Your task to perform on an android device: Open calendar and show me the fourth week of next month Image 0: 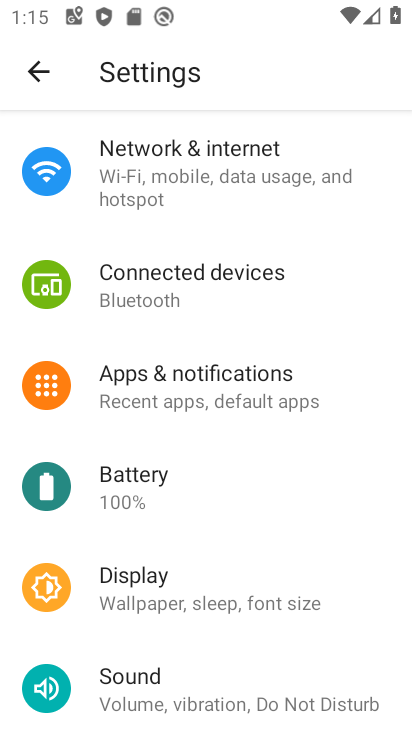
Step 0: press home button
Your task to perform on an android device: Open calendar and show me the fourth week of next month Image 1: 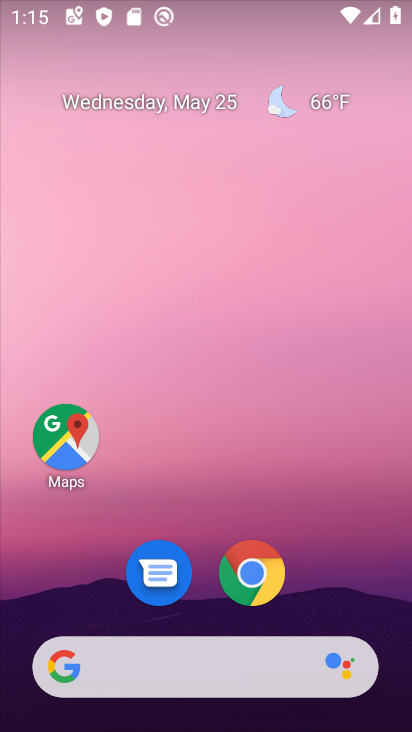
Step 1: drag from (374, 608) to (326, 88)
Your task to perform on an android device: Open calendar and show me the fourth week of next month Image 2: 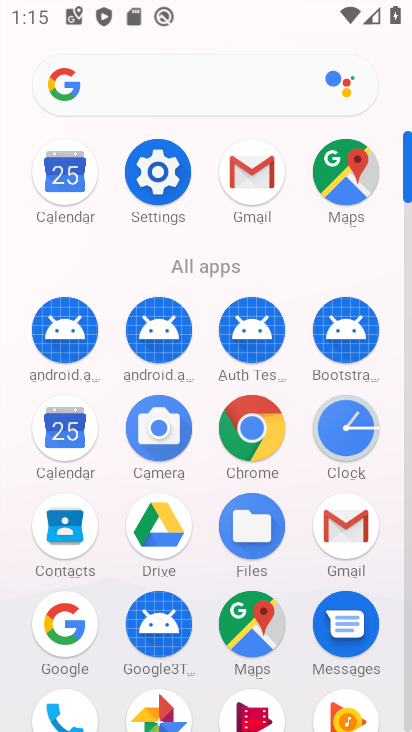
Step 2: click (407, 701)
Your task to perform on an android device: Open calendar and show me the fourth week of next month Image 3: 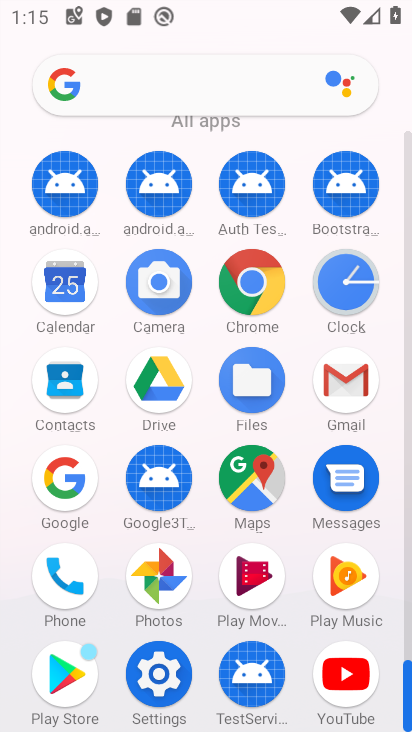
Step 3: click (64, 283)
Your task to perform on an android device: Open calendar and show me the fourth week of next month Image 4: 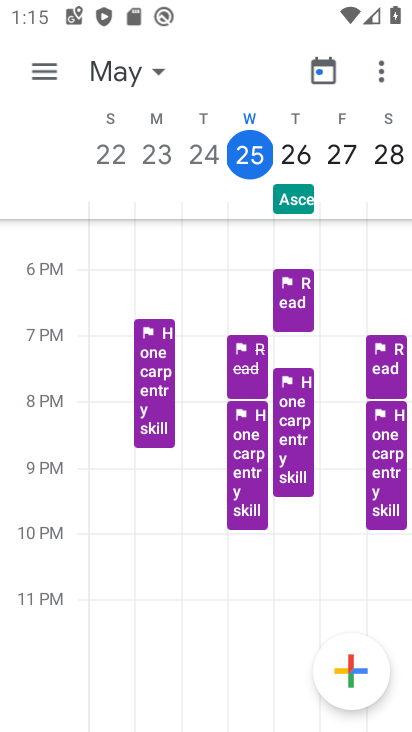
Step 4: click (50, 73)
Your task to perform on an android device: Open calendar and show me the fourth week of next month Image 5: 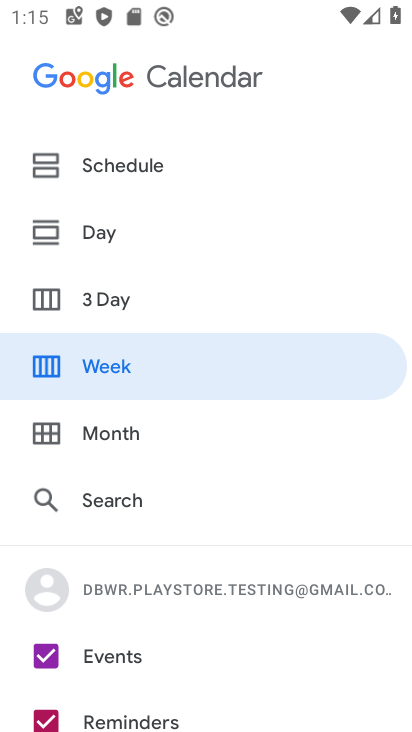
Step 5: click (154, 343)
Your task to perform on an android device: Open calendar and show me the fourth week of next month Image 6: 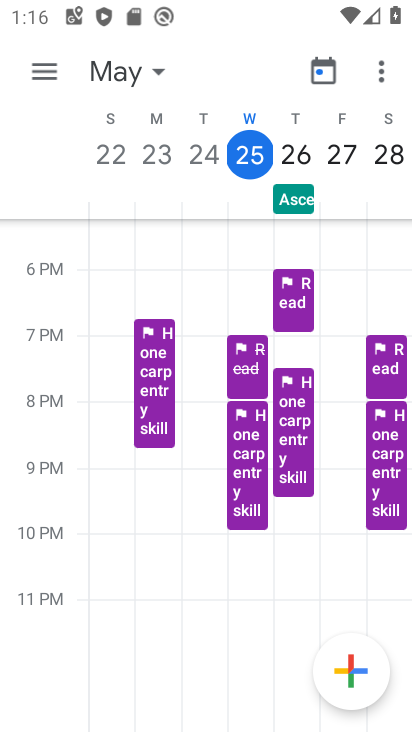
Step 6: click (152, 74)
Your task to perform on an android device: Open calendar and show me the fourth week of next month Image 7: 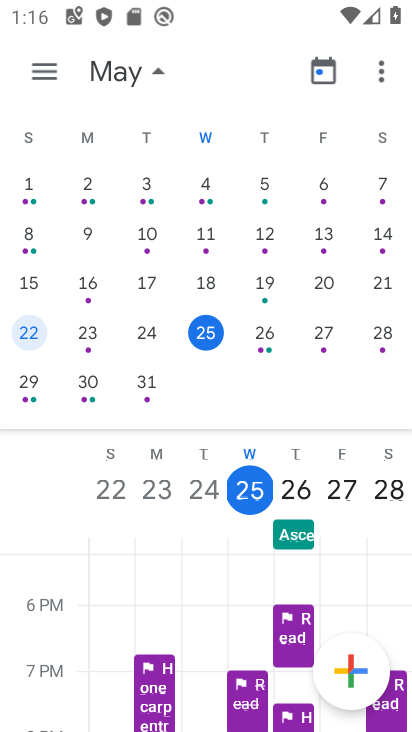
Step 7: drag from (386, 275) to (4, 263)
Your task to perform on an android device: Open calendar and show me the fourth week of next month Image 8: 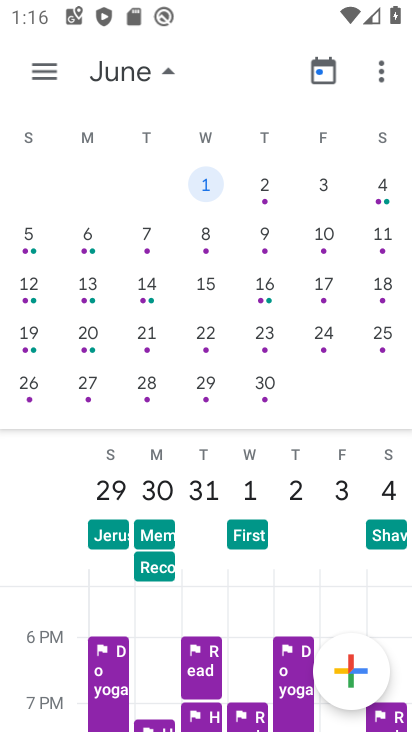
Step 8: click (28, 383)
Your task to perform on an android device: Open calendar and show me the fourth week of next month Image 9: 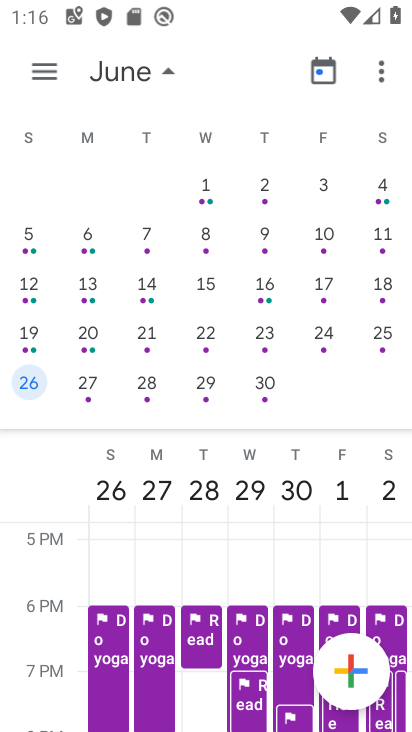
Step 9: task complete